Your task to perform on an android device: open sync settings in chrome Image 0: 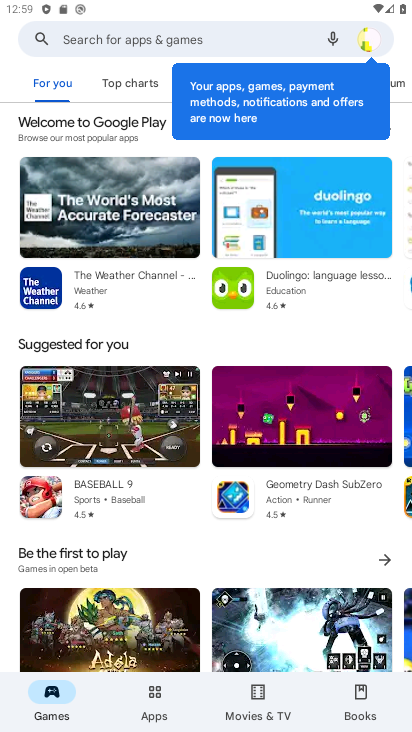
Step 0: press home button
Your task to perform on an android device: open sync settings in chrome Image 1: 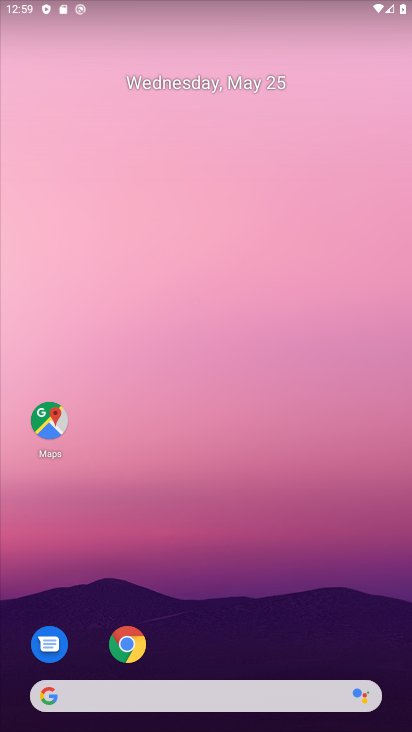
Step 1: click (128, 645)
Your task to perform on an android device: open sync settings in chrome Image 2: 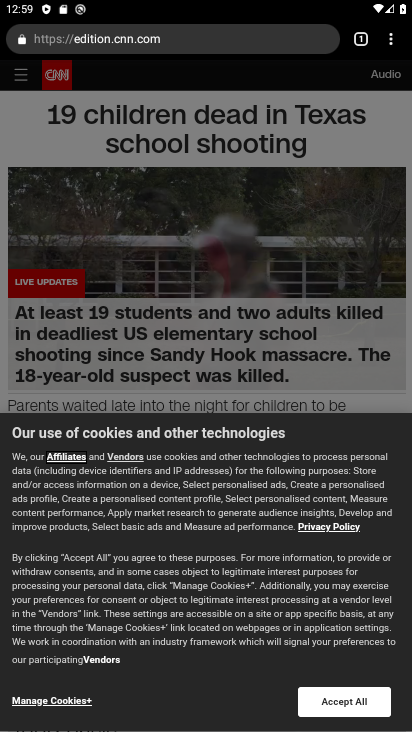
Step 2: click (390, 47)
Your task to perform on an android device: open sync settings in chrome Image 3: 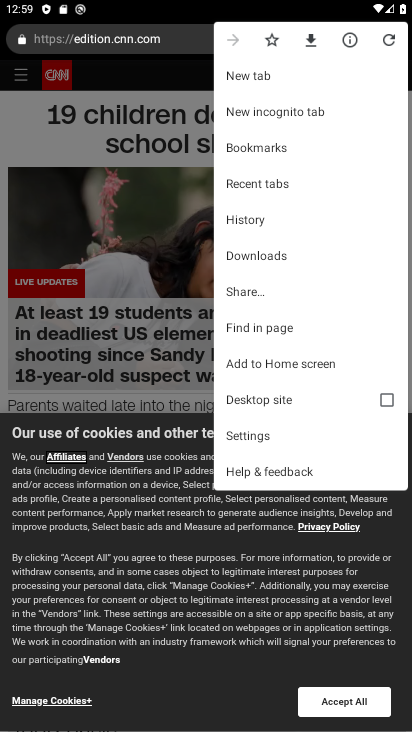
Step 3: click (251, 445)
Your task to perform on an android device: open sync settings in chrome Image 4: 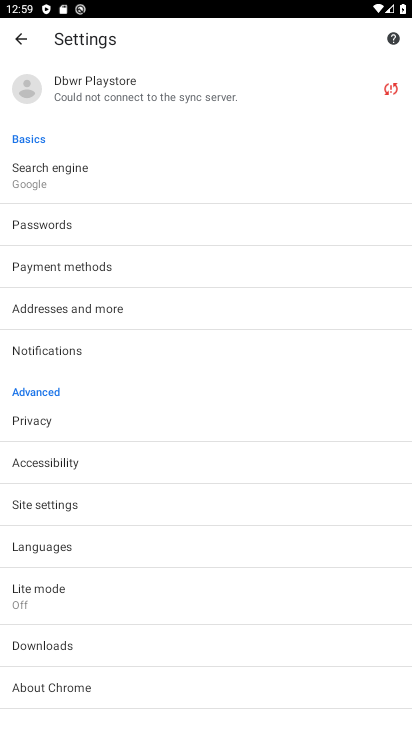
Step 4: click (118, 100)
Your task to perform on an android device: open sync settings in chrome Image 5: 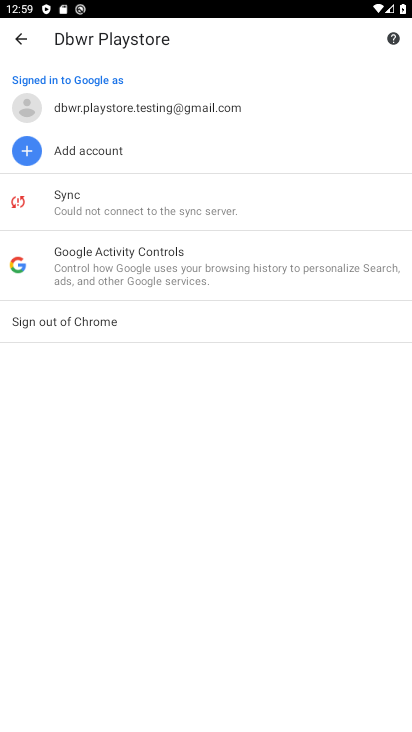
Step 5: click (76, 203)
Your task to perform on an android device: open sync settings in chrome Image 6: 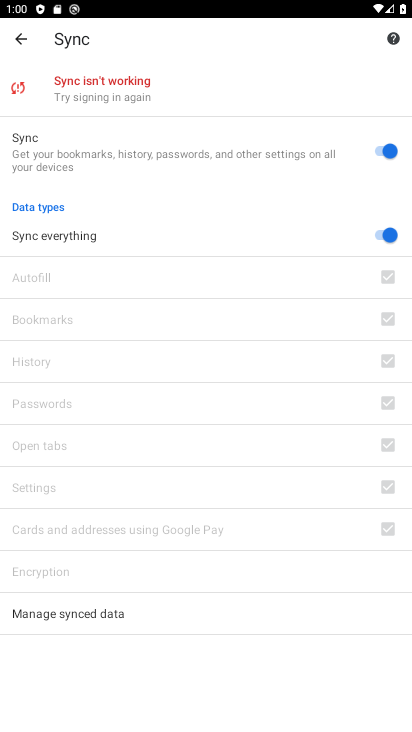
Step 6: task complete